Your task to perform on an android device: Search for pizza restaurants on Maps Image 0: 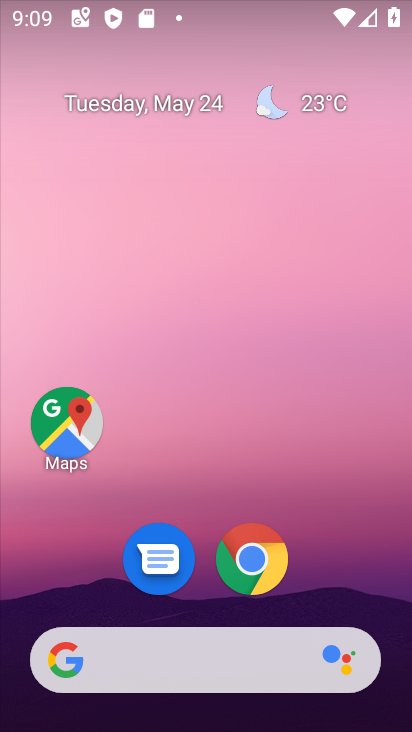
Step 0: click (52, 424)
Your task to perform on an android device: Search for pizza restaurants on Maps Image 1: 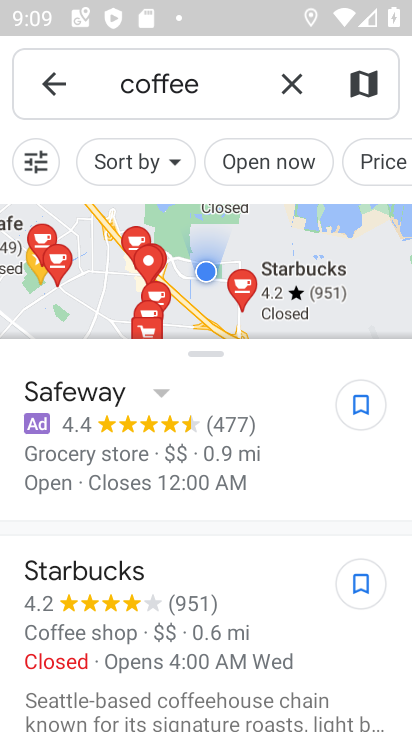
Step 1: click (193, 71)
Your task to perform on an android device: Search for pizza restaurants on Maps Image 2: 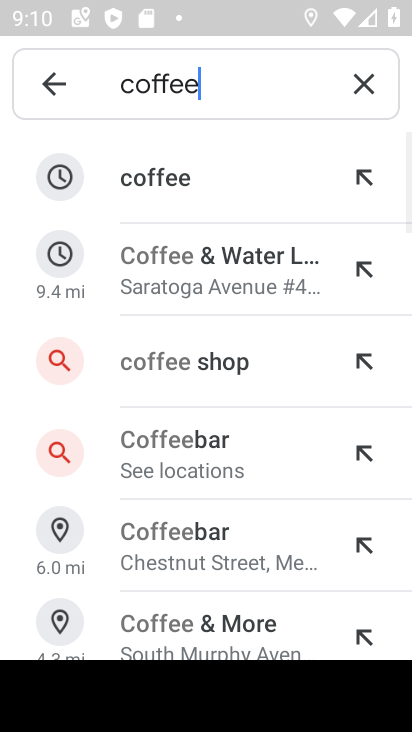
Step 2: click (353, 84)
Your task to perform on an android device: Search for pizza restaurants on Maps Image 3: 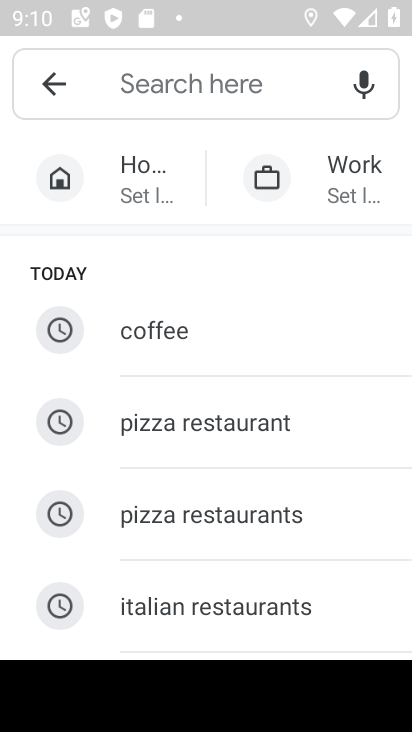
Step 3: type "pizza restaurants"
Your task to perform on an android device: Search for pizza restaurants on Maps Image 4: 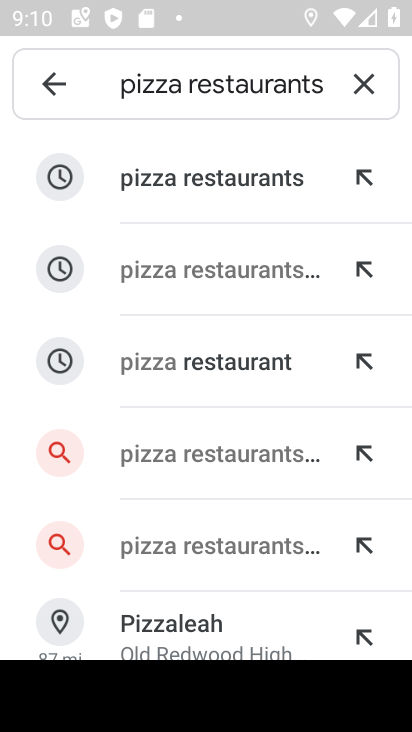
Step 4: click (271, 176)
Your task to perform on an android device: Search for pizza restaurants on Maps Image 5: 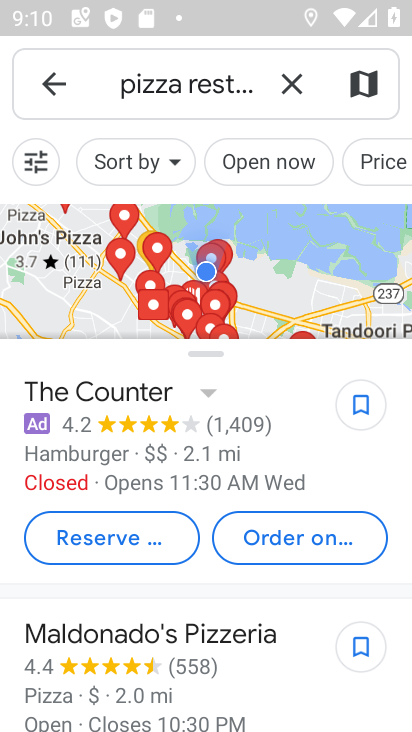
Step 5: task complete